Your task to perform on an android device: Add logitech g903 to the cart on amazon.com Image 0: 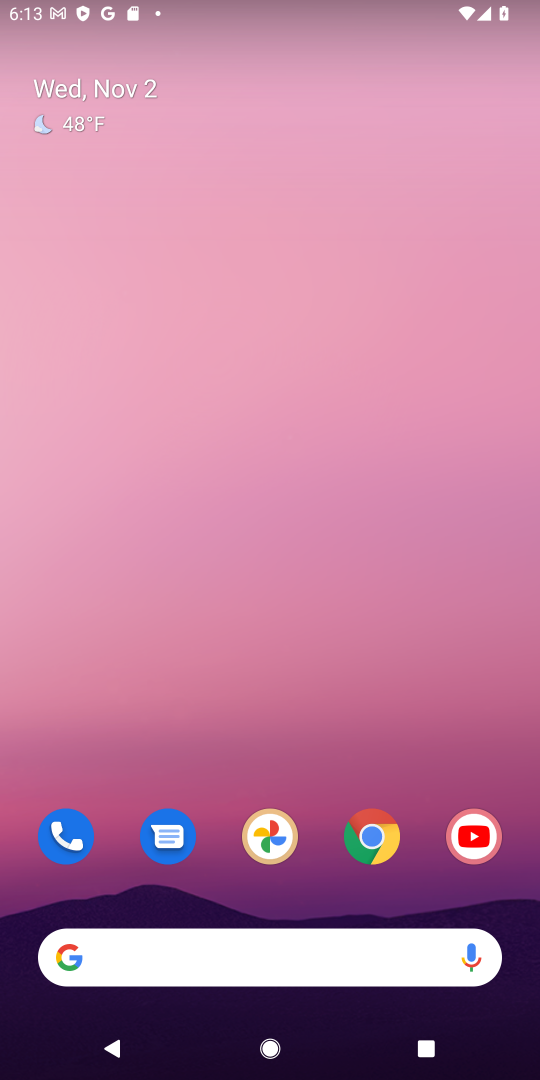
Step 0: drag from (232, 943) to (271, 395)
Your task to perform on an android device: Add logitech g903 to the cart on amazon.com Image 1: 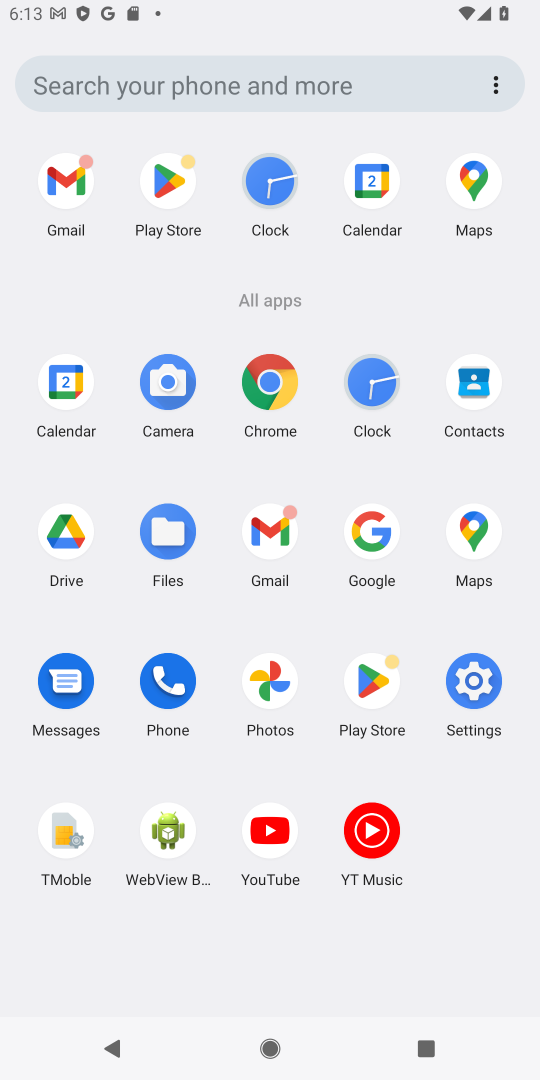
Step 1: click (369, 531)
Your task to perform on an android device: Add logitech g903 to the cart on amazon.com Image 2: 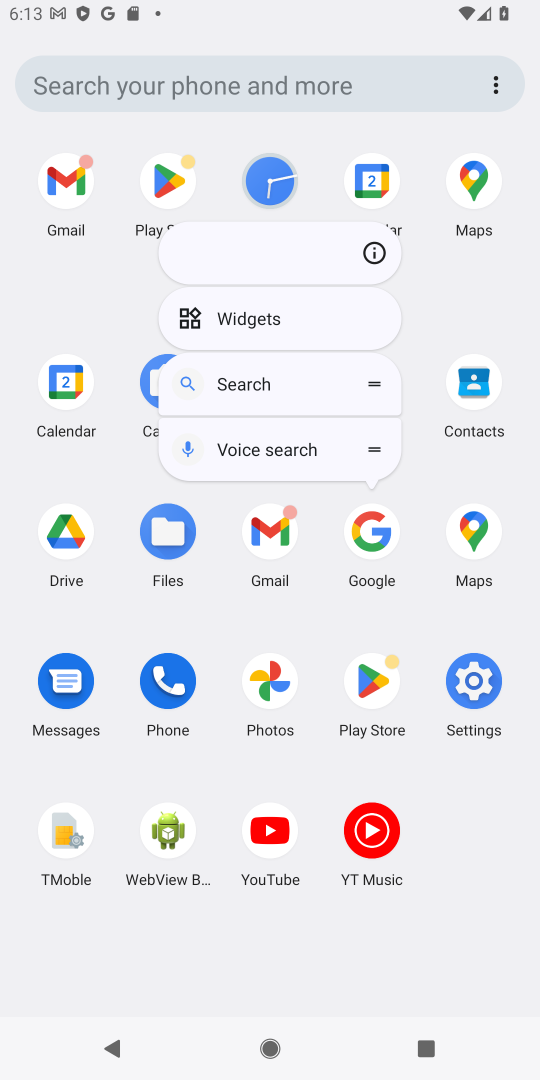
Step 2: click (372, 526)
Your task to perform on an android device: Add logitech g903 to the cart on amazon.com Image 3: 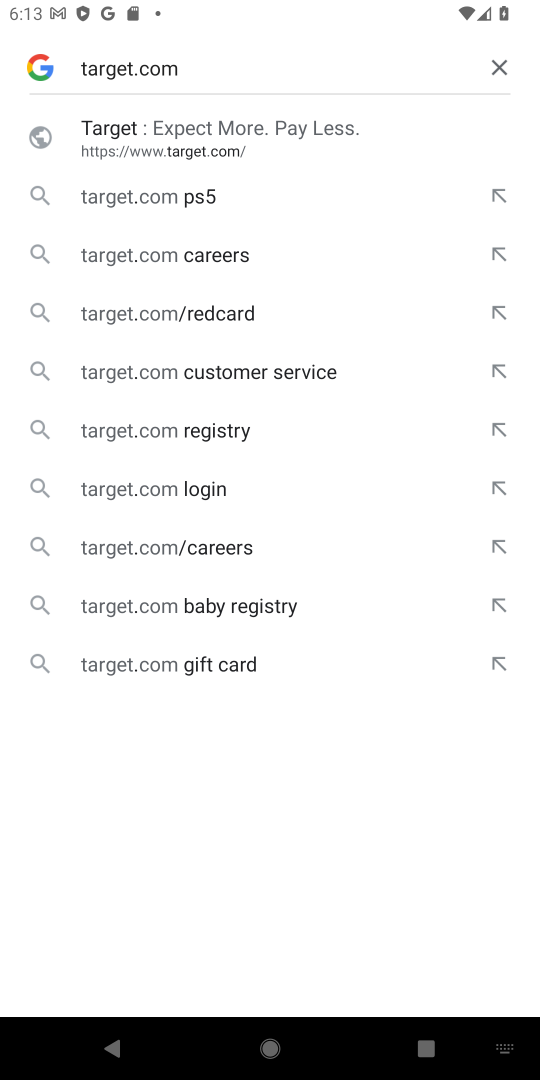
Step 3: click (499, 72)
Your task to perform on an android device: Add logitech g903 to the cart on amazon.com Image 4: 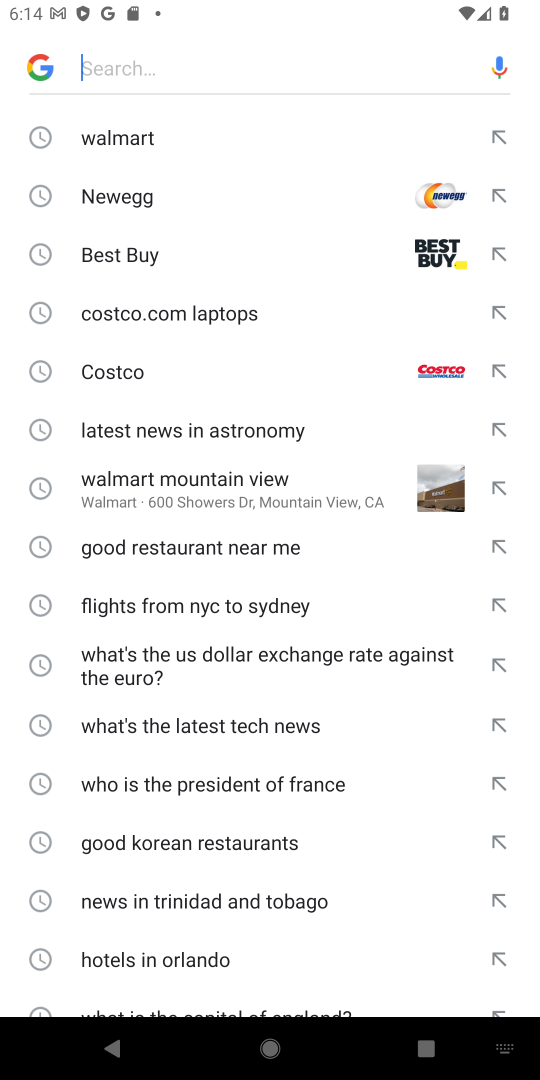
Step 4: type "amazon.com"
Your task to perform on an android device: Add logitech g903 to the cart on amazon.com Image 5: 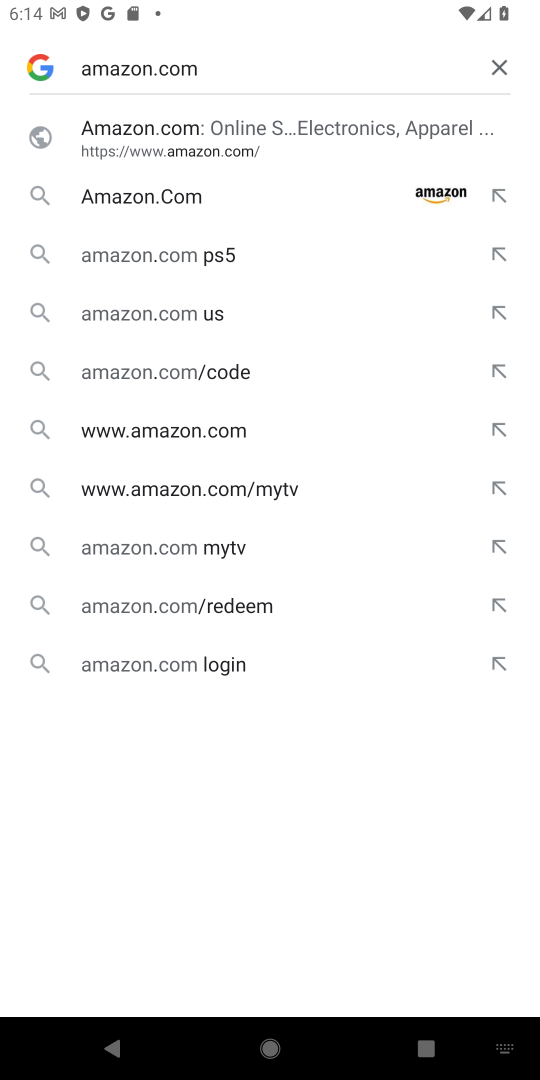
Step 5: click (192, 208)
Your task to perform on an android device: Add logitech g903 to the cart on amazon.com Image 6: 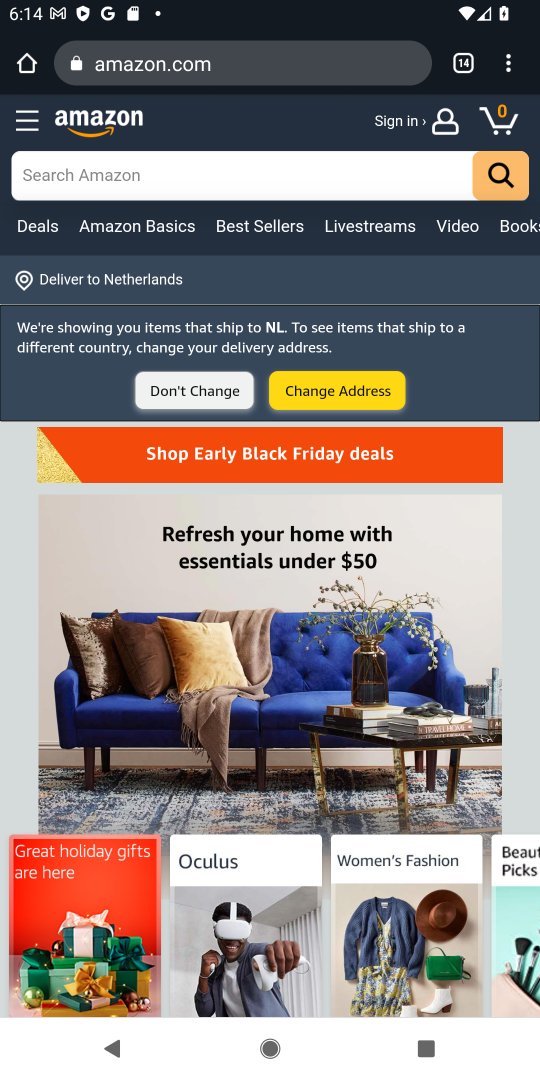
Step 6: click (148, 172)
Your task to perform on an android device: Add logitech g903 to the cart on amazon.com Image 7: 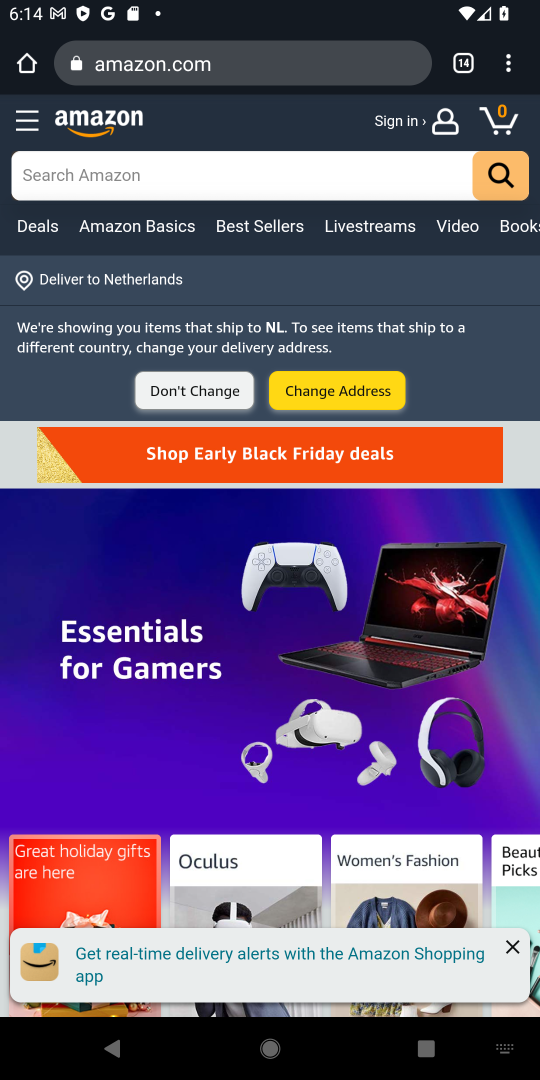
Step 7: type "logitech g903"
Your task to perform on an android device: Add logitech g903 to the cart on amazon.com Image 8: 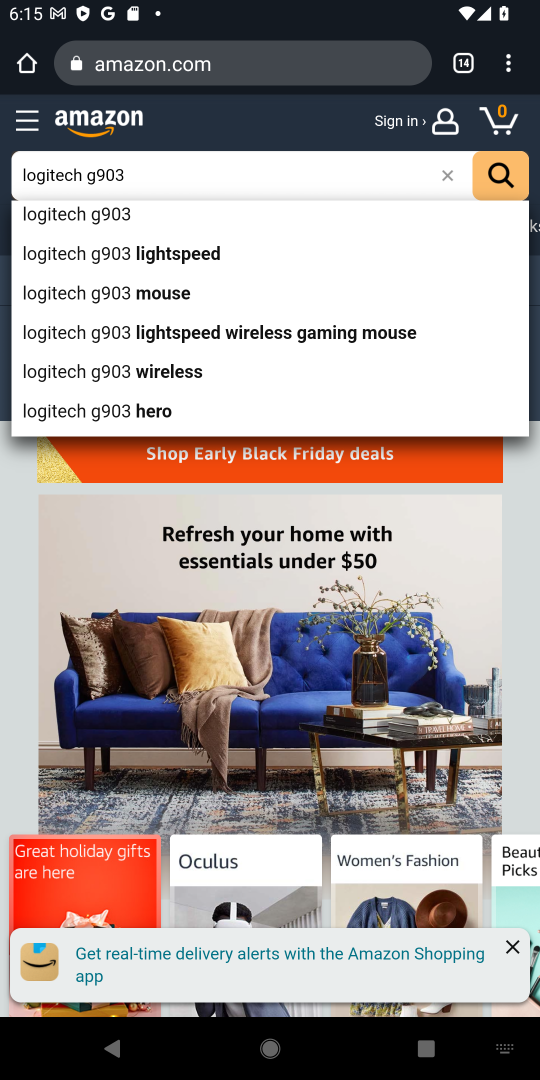
Step 8: click (119, 209)
Your task to perform on an android device: Add logitech g903 to the cart on amazon.com Image 9: 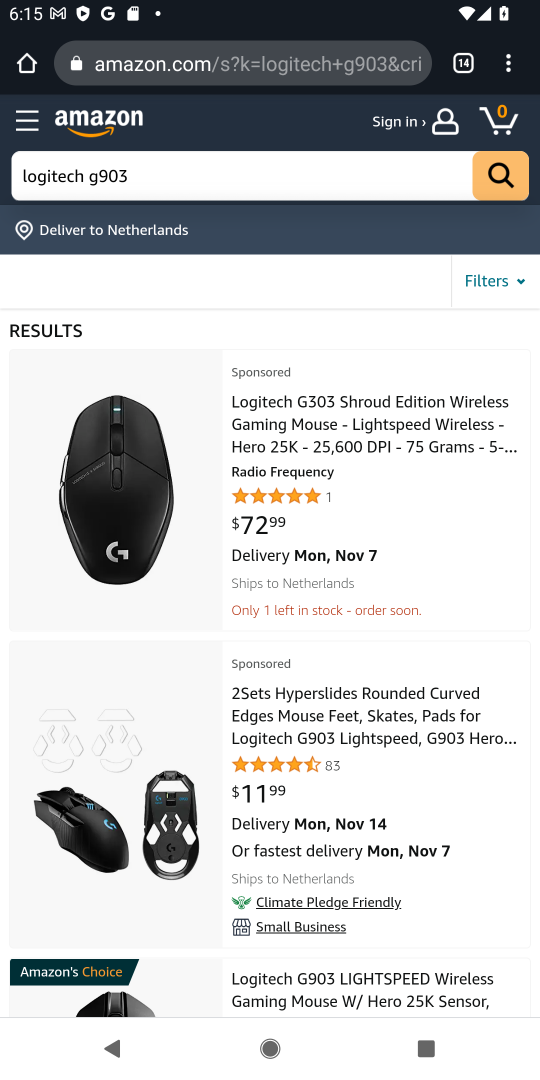
Step 9: click (266, 451)
Your task to perform on an android device: Add logitech g903 to the cart on amazon.com Image 10: 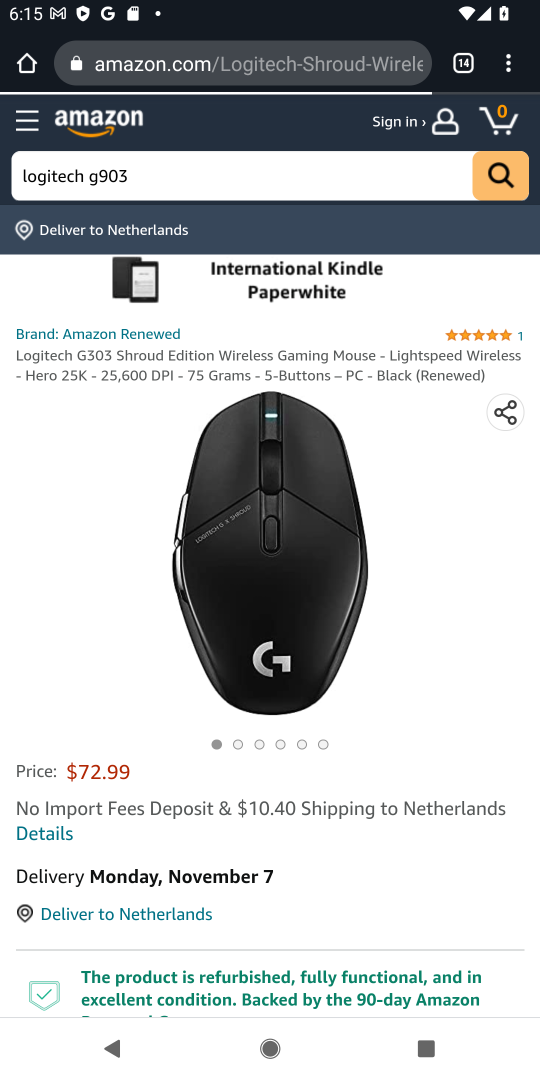
Step 10: drag from (303, 900) to (312, 436)
Your task to perform on an android device: Add logitech g903 to the cart on amazon.com Image 11: 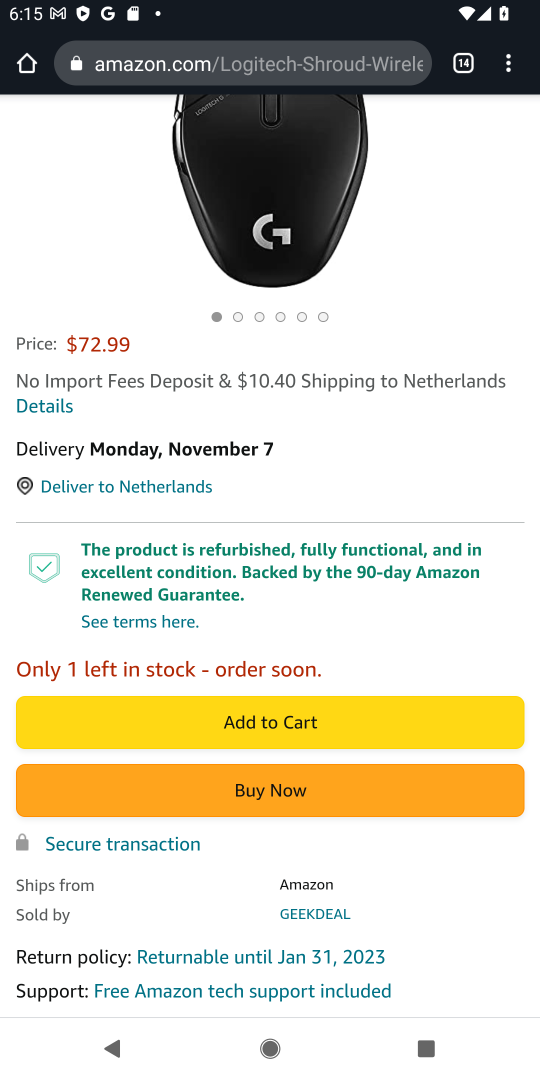
Step 11: click (224, 708)
Your task to perform on an android device: Add logitech g903 to the cart on amazon.com Image 12: 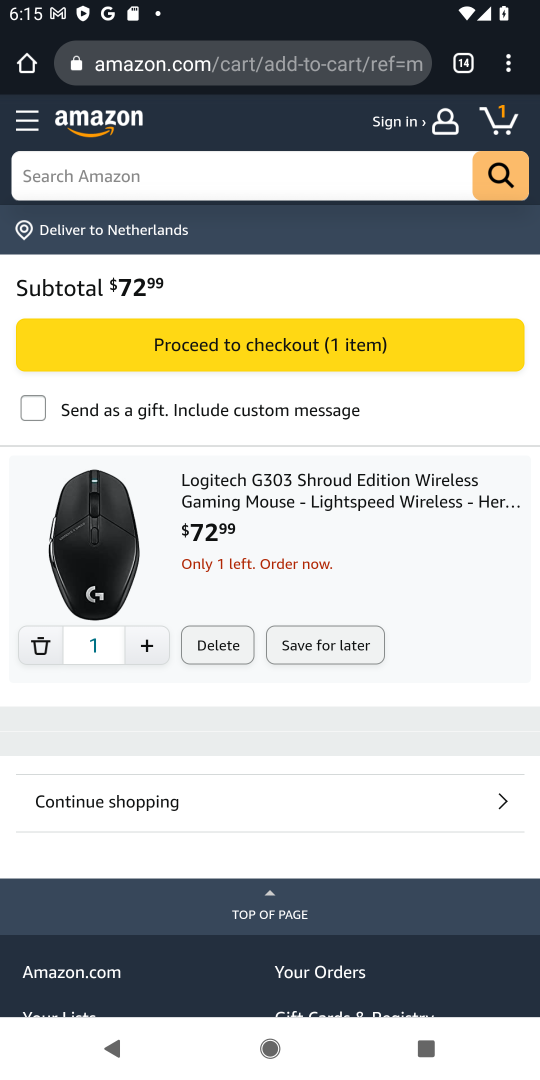
Step 12: task complete